Your task to perform on an android device: Go to sound settings Image 0: 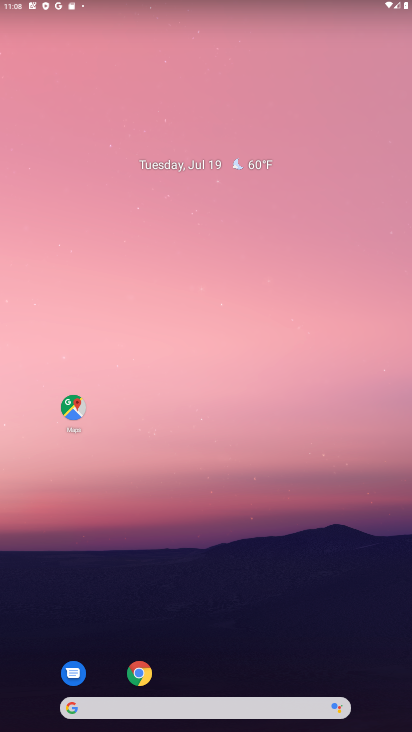
Step 0: drag from (394, 685) to (308, 147)
Your task to perform on an android device: Go to sound settings Image 1: 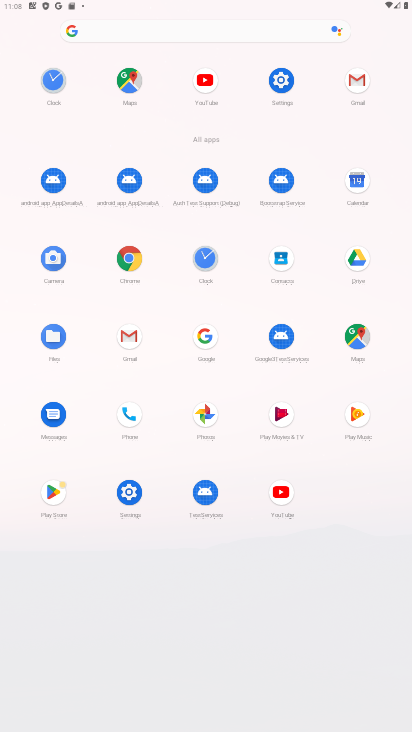
Step 1: click (128, 492)
Your task to perform on an android device: Go to sound settings Image 2: 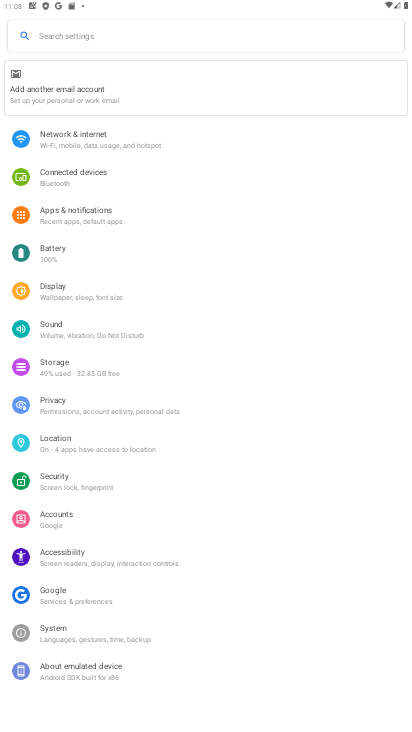
Step 2: click (58, 325)
Your task to perform on an android device: Go to sound settings Image 3: 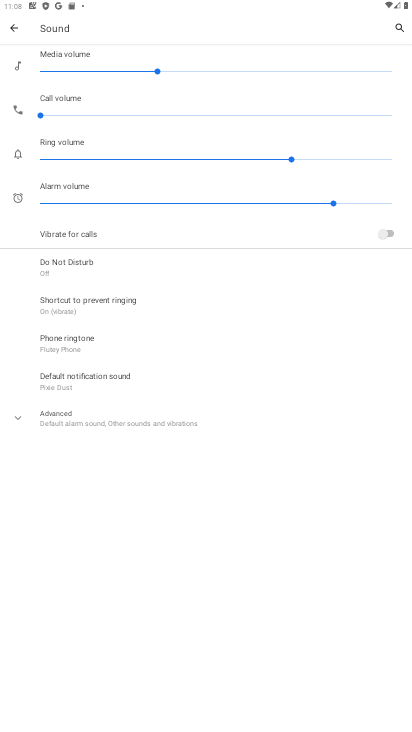
Step 3: click (16, 417)
Your task to perform on an android device: Go to sound settings Image 4: 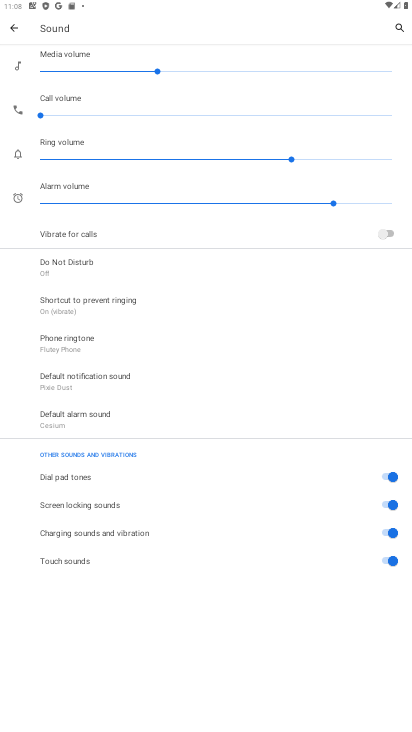
Step 4: task complete